Your task to perform on an android device: Open internet settings Image 0: 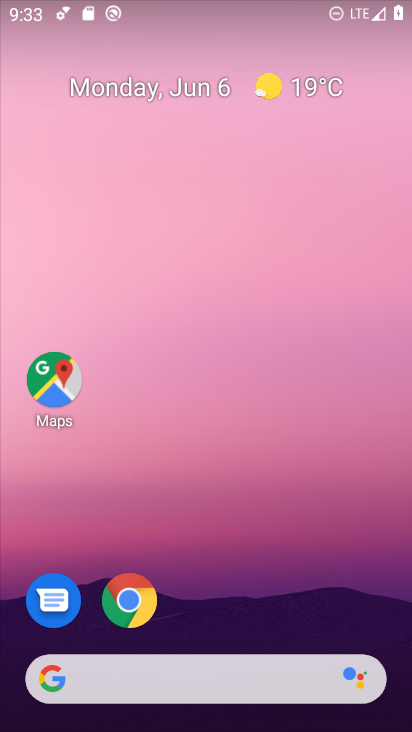
Step 0: drag from (262, 536) to (251, 68)
Your task to perform on an android device: Open internet settings Image 1: 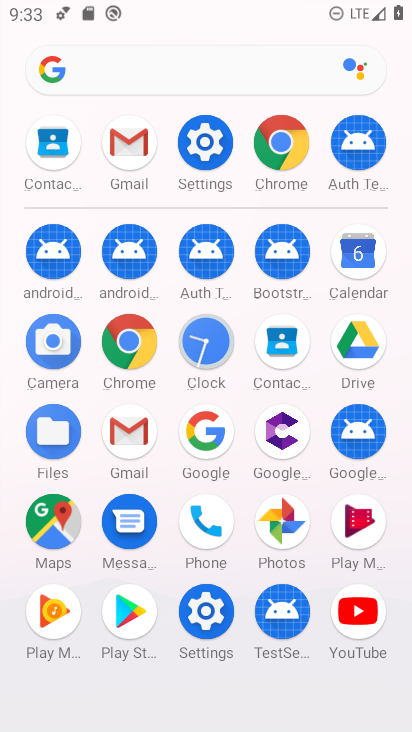
Step 1: click (204, 148)
Your task to perform on an android device: Open internet settings Image 2: 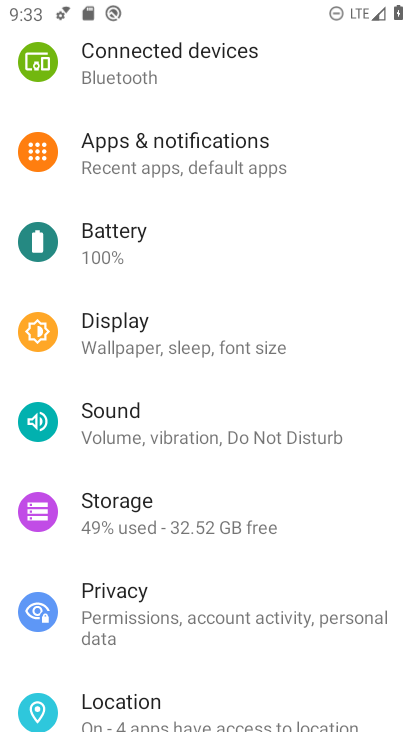
Step 2: drag from (227, 156) to (229, 580)
Your task to perform on an android device: Open internet settings Image 3: 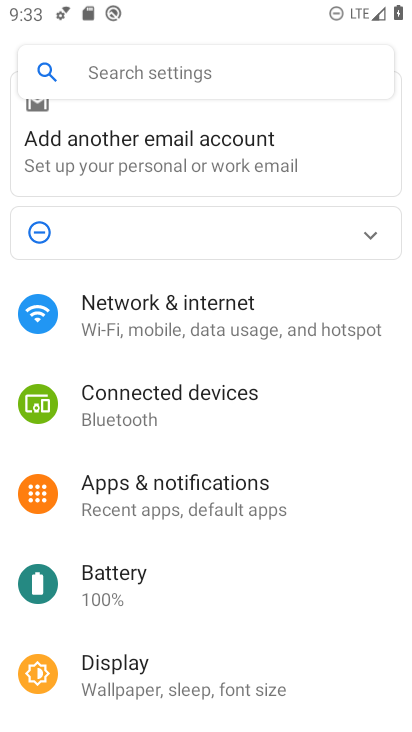
Step 3: click (203, 296)
Your task to perform on an android device: Open internet settings Image 4: 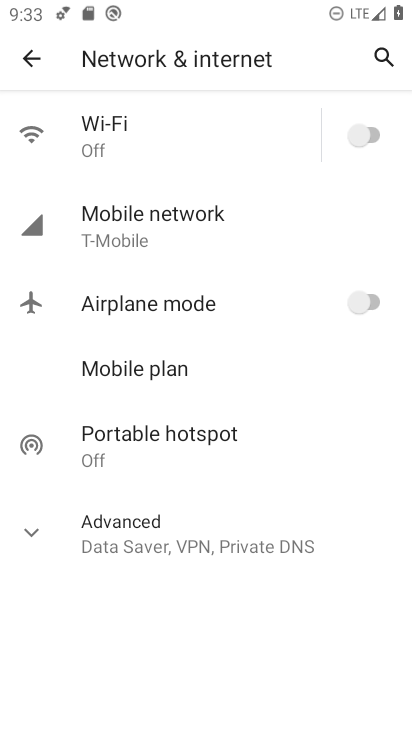
Step 4: task complete